Your task to perform on an android device: add a contact Image 0: 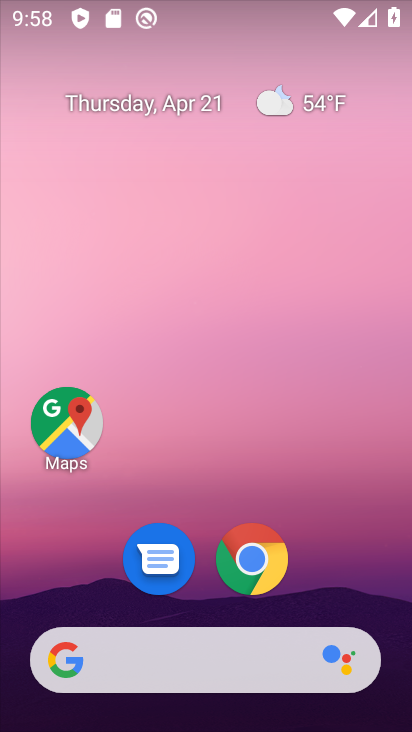
Step 0: drag from (211, 563) to (256, 93)
Your task to perform on an android device: add a contact Image 1: 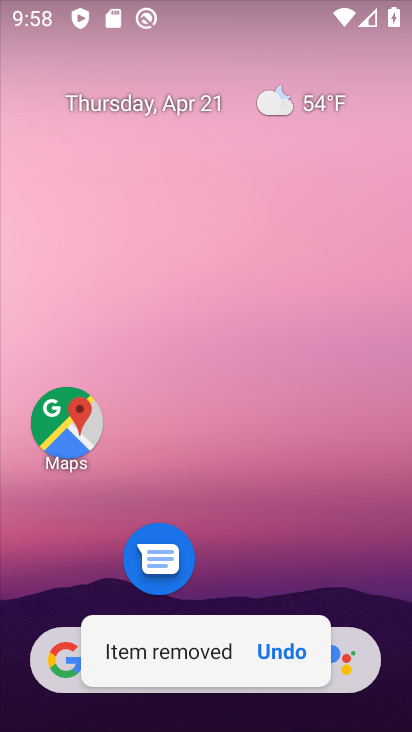
Step 1: drag from (269, 444) to (280, 52)
Your task to perform on an android device: add a contact Image 2: 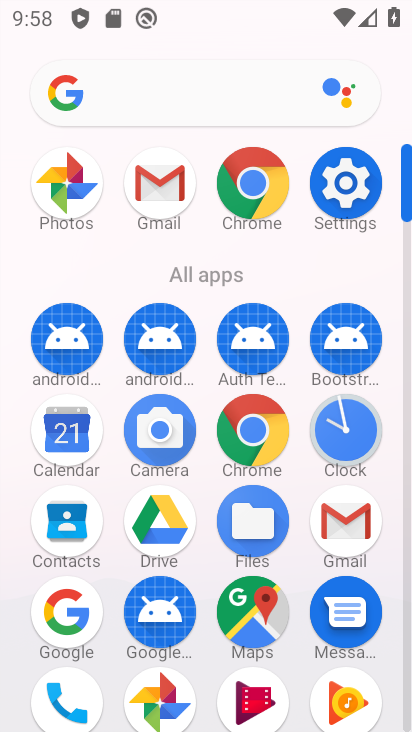
Step 2: click (76, 507)
Your task to perform on an android device: add a contact Image 3: 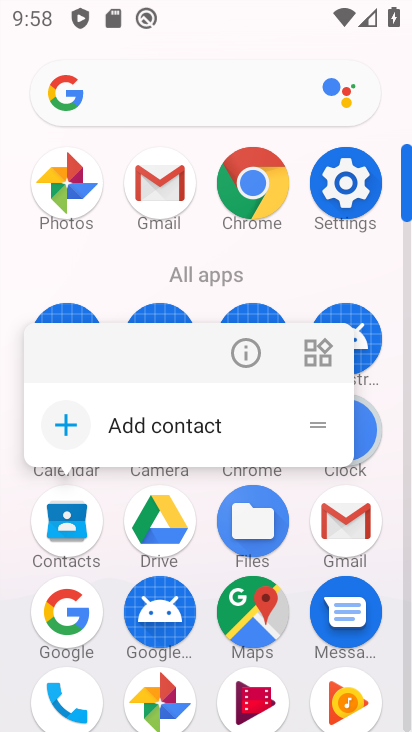
Step 3: click (67, 520)
Your task to perform on an android device: add a contact Image 4: 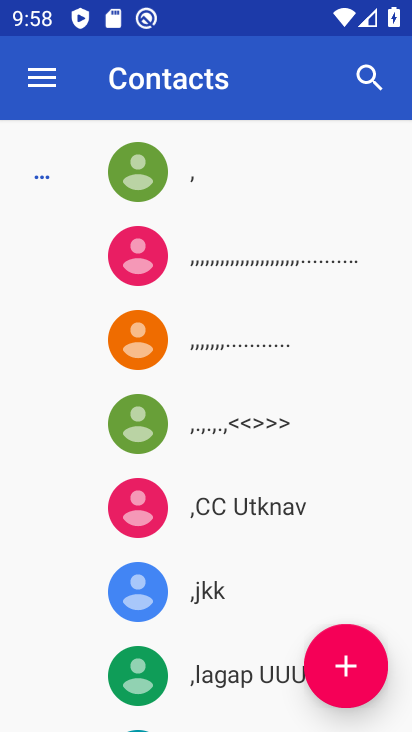
Step 4: click (344, 675)
Your task to perform on an android device: add a contact Image 5: 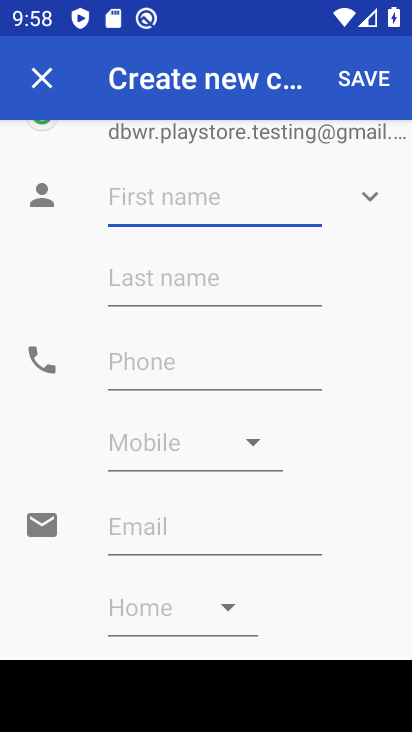
Step 5: click (132, 207)
Your task to perform on an android device: add a contact Image 6: 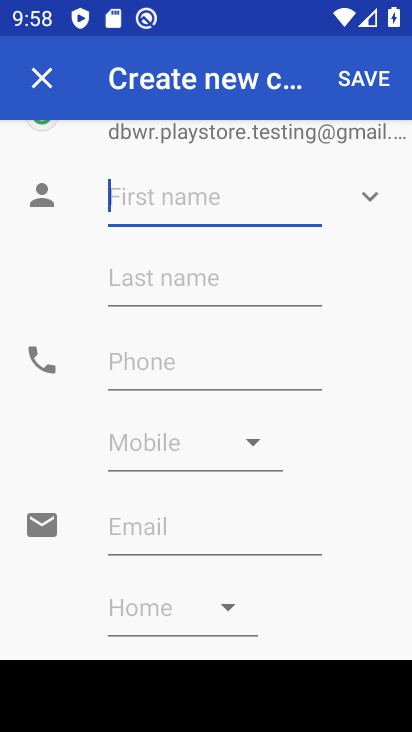
Step 6: type "gfgv"
Your task to perform on an android device: add a contact Image 7: 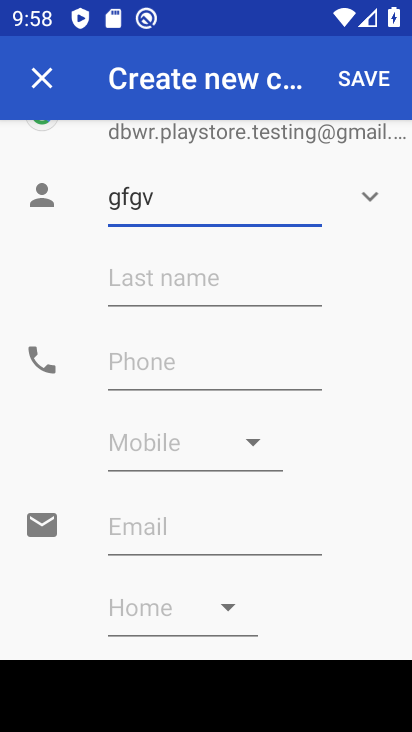
Step 7: click (222, 366)
Your task to perform on an android device: add a contact Image 8: 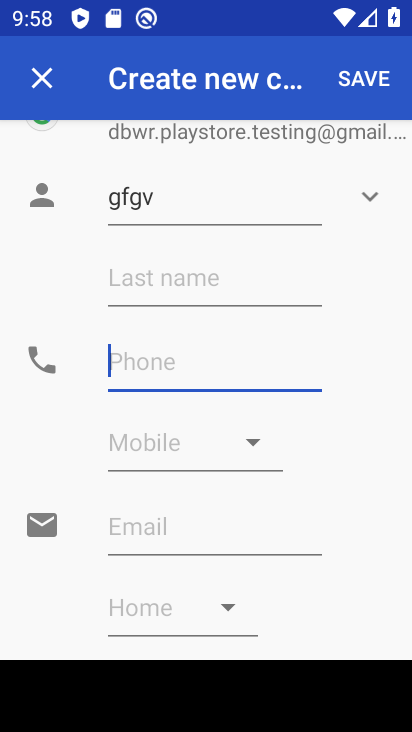
Step 8: type "7676"
Your task to perform on an android device: add a contact Image 9: 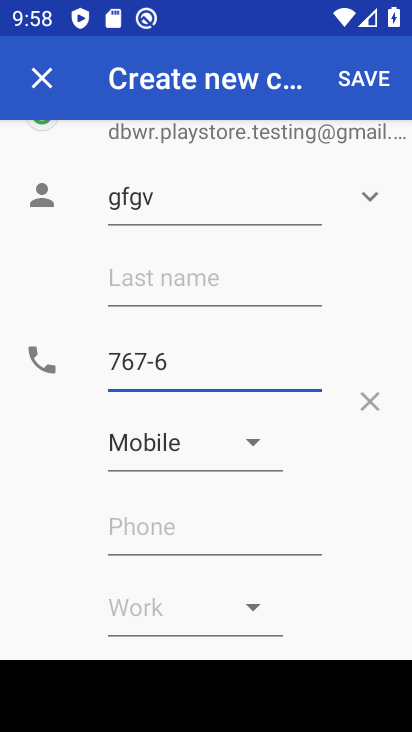
Step 9: click (357, 66)
Your task to perform on an android device: add a contact Image 10: 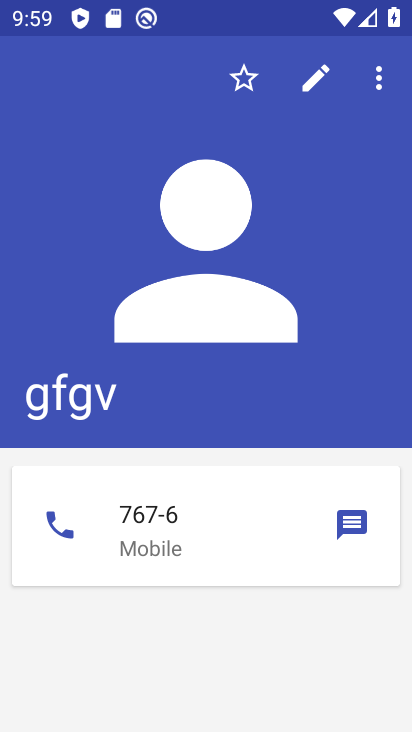
Step 10: task complete